Your task to perform on an android device: check storage Image 0: 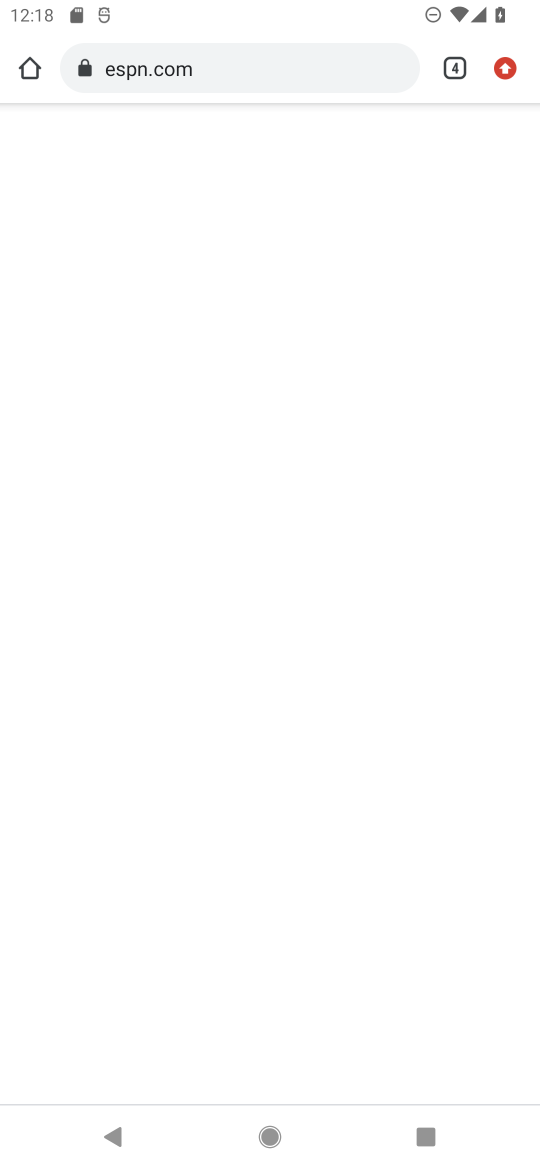
Step 0: press home button
Your task to perform on an android device: check storage Image 1: 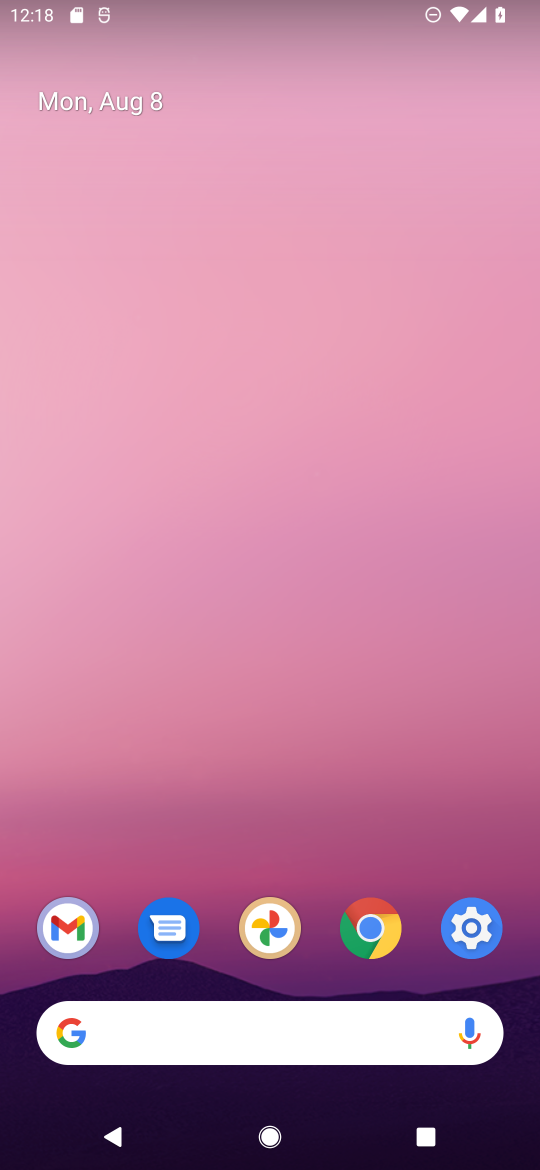
Step 1: drag from (339, 1067) to (209, 314)
Your task to perform on an android device: check storage Image 2: 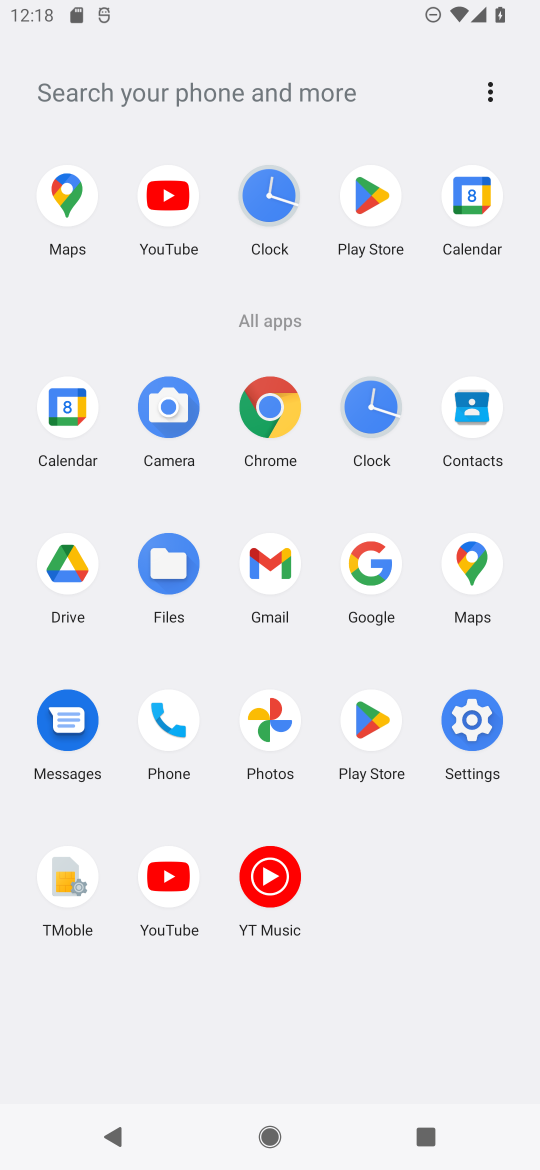
Step 2: click (464, 701)
Your task to perform on an android device: check storage Image 3: 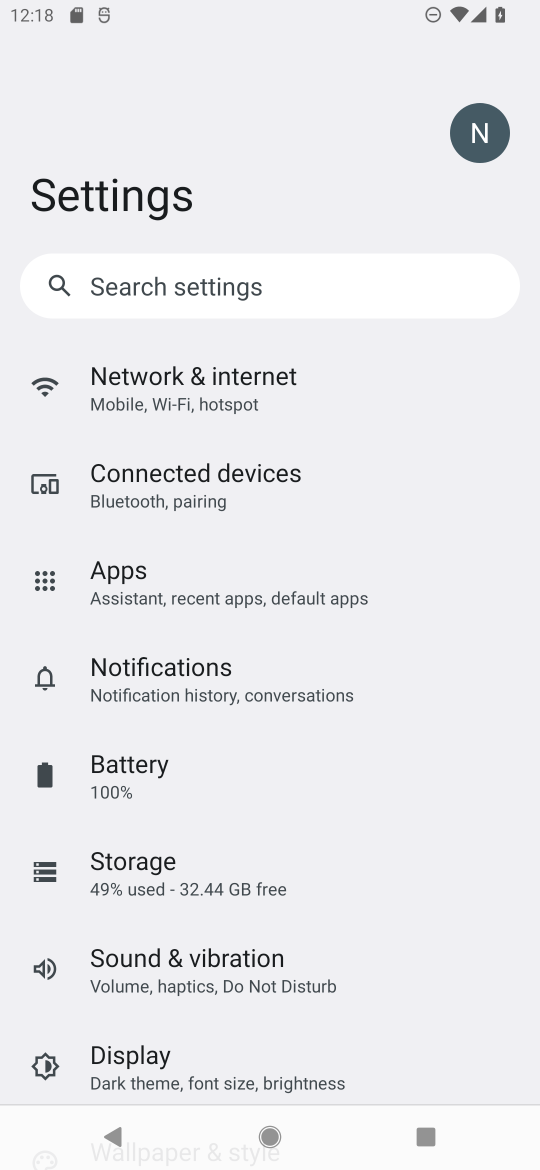
Step 3: click (164, 897)
Your task to perform on an android device: check storage Image 4: 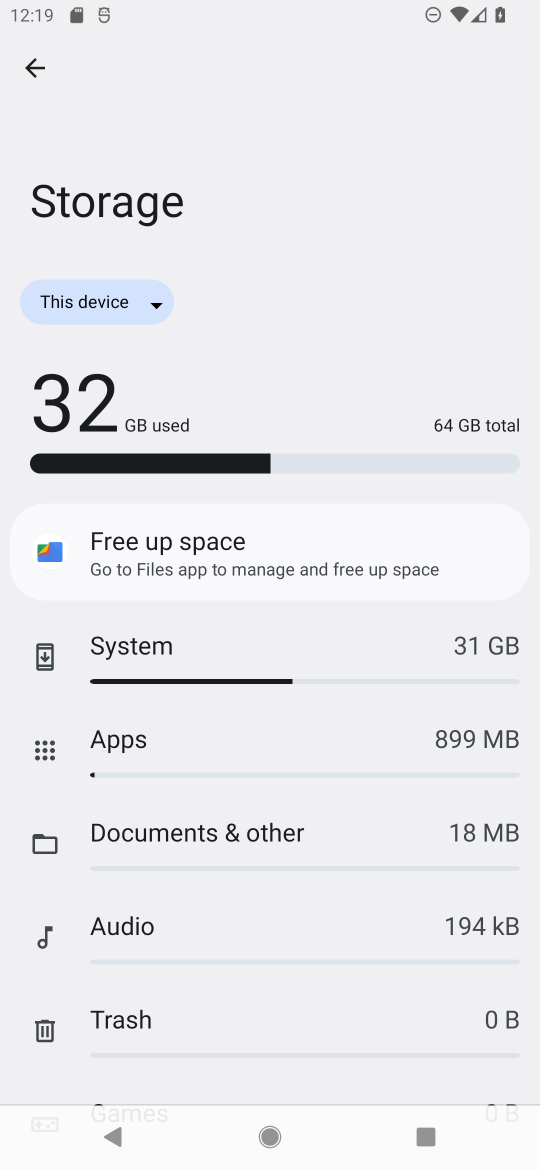
Step 4: task complete